Your task to perform on an android device: Go to sound settings Image 0: 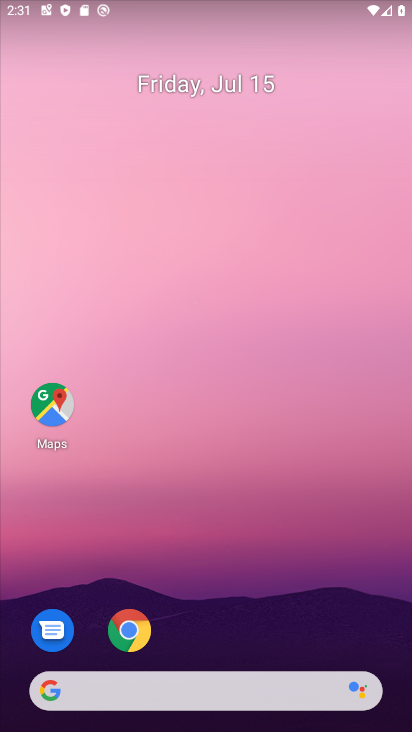
Step 0: drag from (235, 647) to (209, 39)
Your task to perform on an android device: Go to sound settings Image 1: 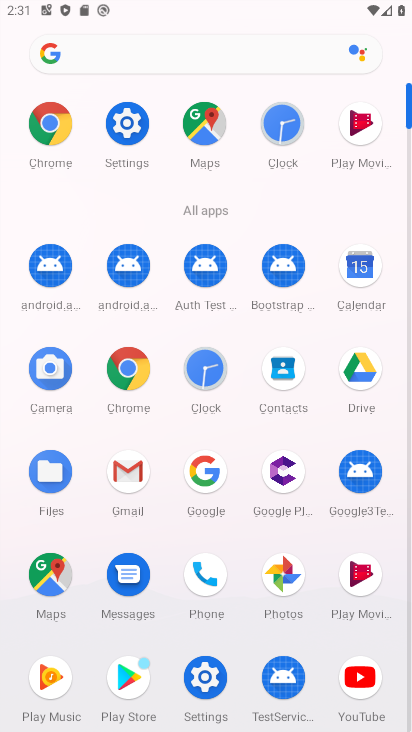
Step 1: click (208, 673)
Your task to perform on an android device: Go to sound settings Image 2: 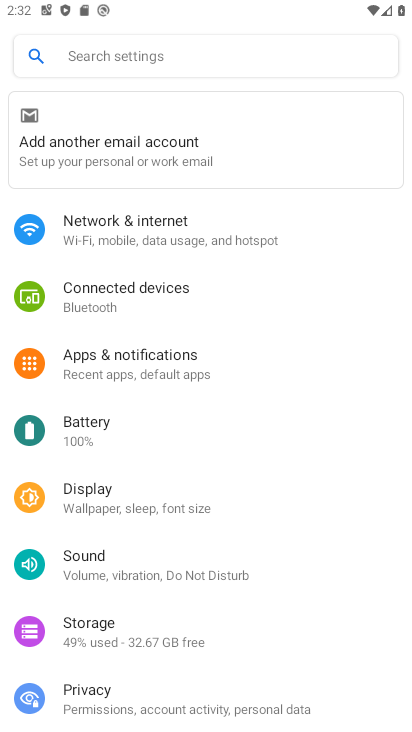
Step 2: click (142, 570)
Your task to perform on an android device: Go to sound settings Image 3: 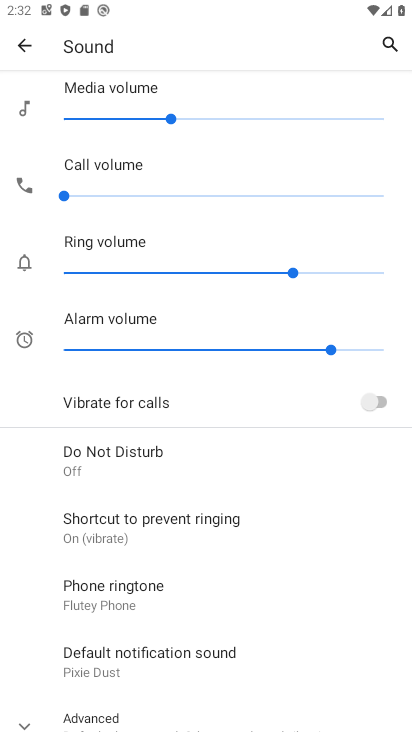
Step 3: task complete